Your task to perform on an android device: Search for "logitech g933" on bestbuy.com, select the first entry, add it to the cart, then select checkout. Image 0: 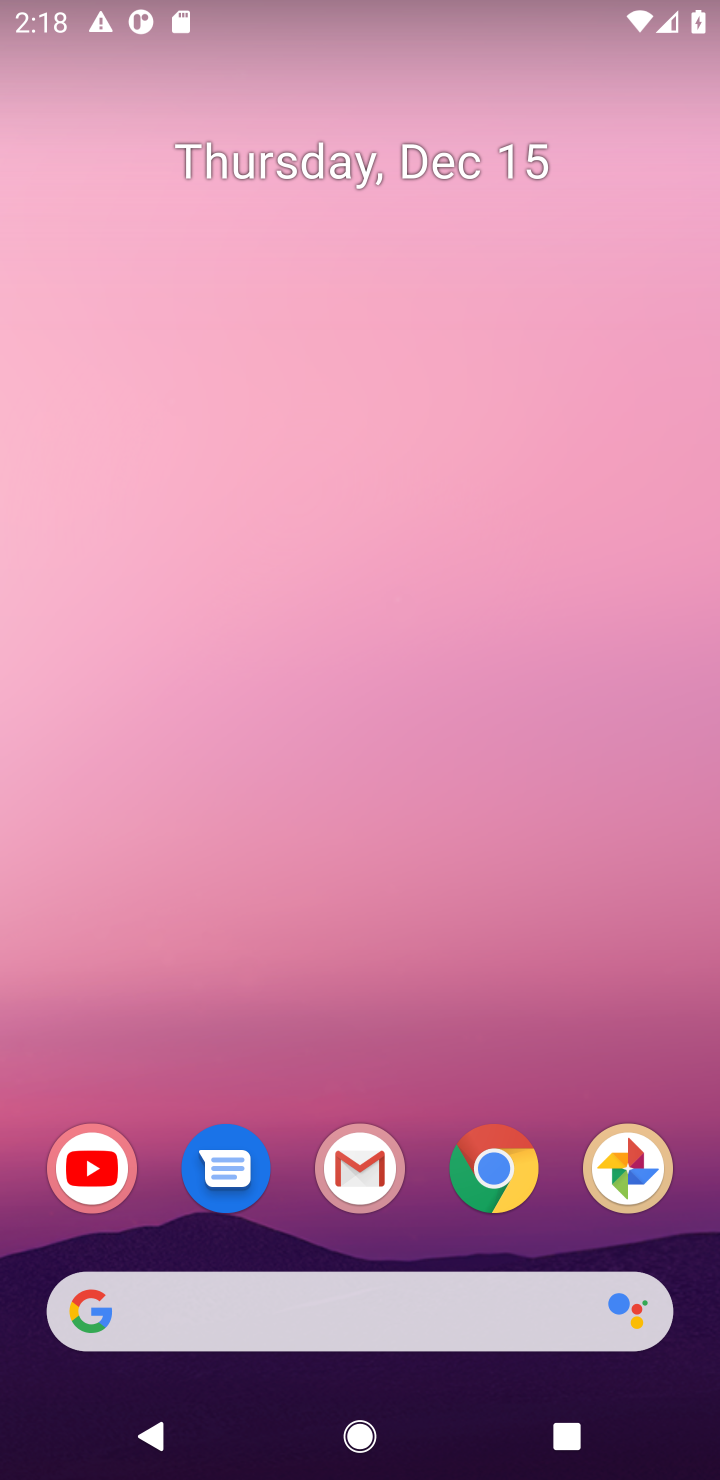
Step 0: click (491, 1153)
Your task to perform on an android device: Search for "logitech g933" on bestbuy.com, select the first entry, add it to the cart, then select checkout. Image 1: 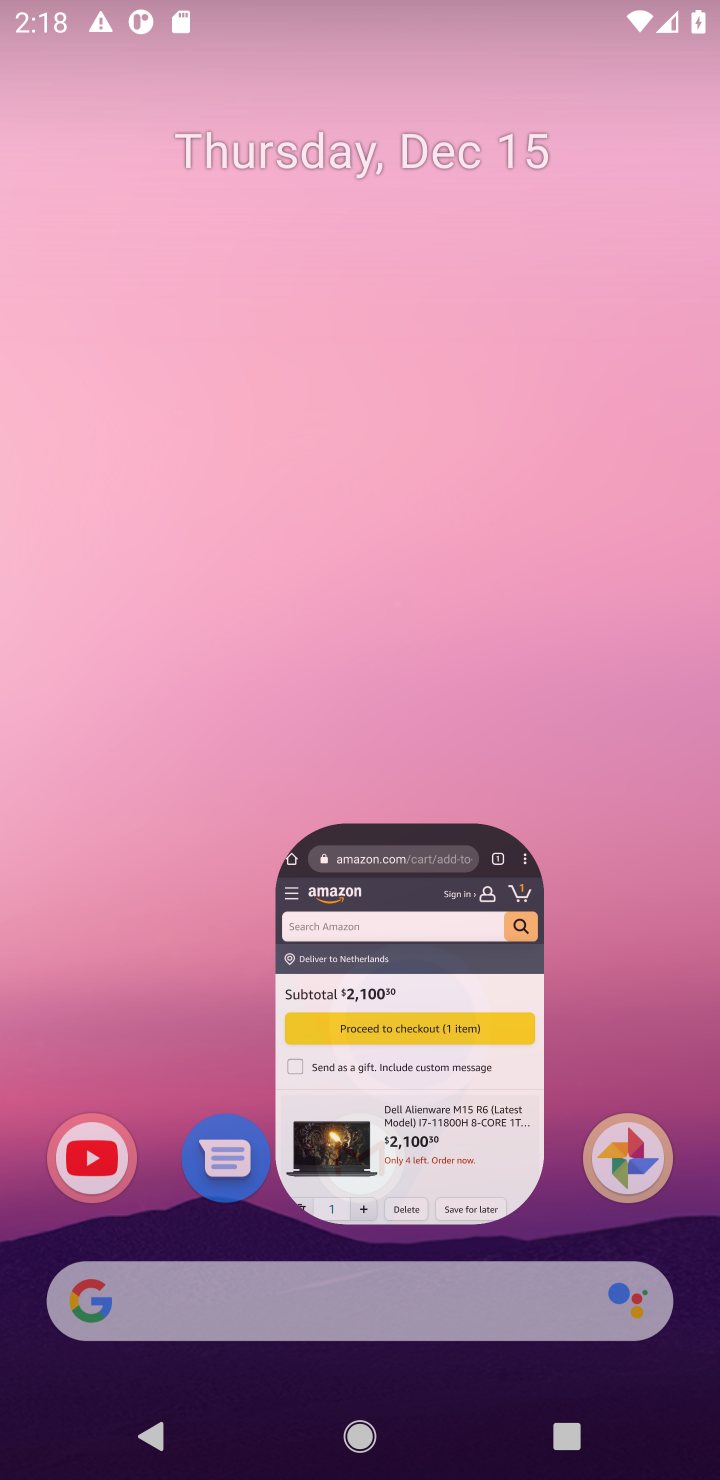
Step 1: click (491, 1153)
Your task to perform on an android device: Search for "logitech g933" on bestbuy.com, select the first entry, add it to the cart, then select checkout. Image 2: 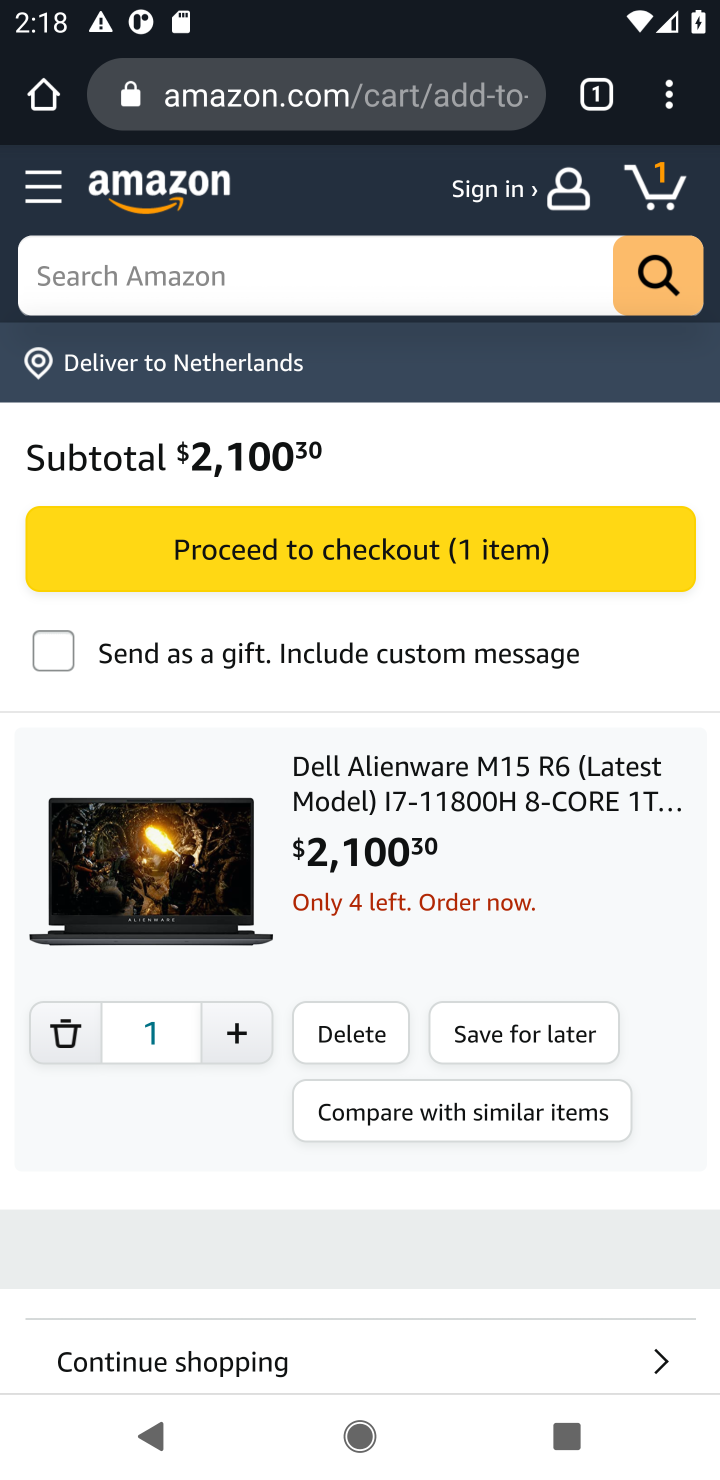
Step 2: drag from (646, 1469) to (53, 83)
Your task to perform on an android device: Search for "logitech g933" on bestbuy.com, select the first entry, add it to the cart, then select checkout. Image 3: 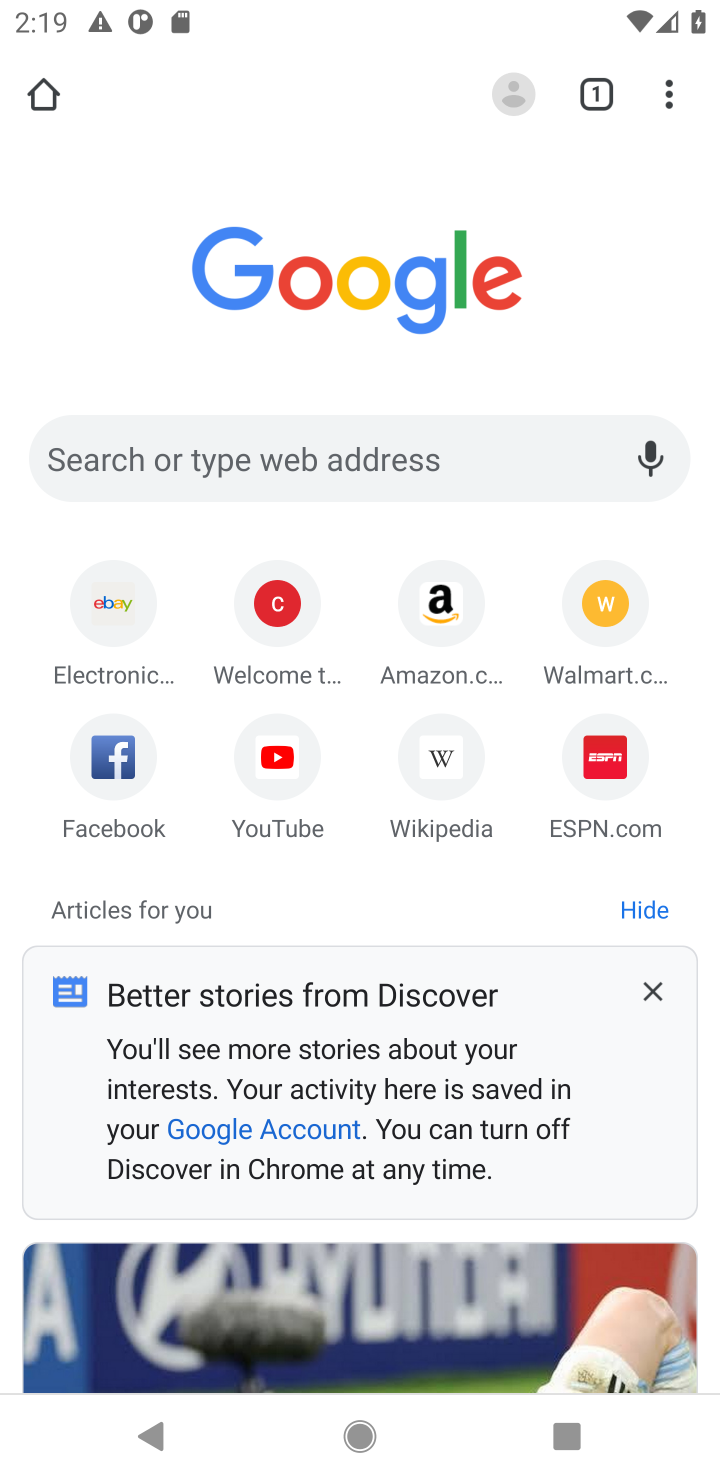
Step 3: click (547, 456)
Your task to perform on an android device: Search for "logitech g933" on bestbuy.com, select the first entry, add it to the cart, then select checkout. Image 4: 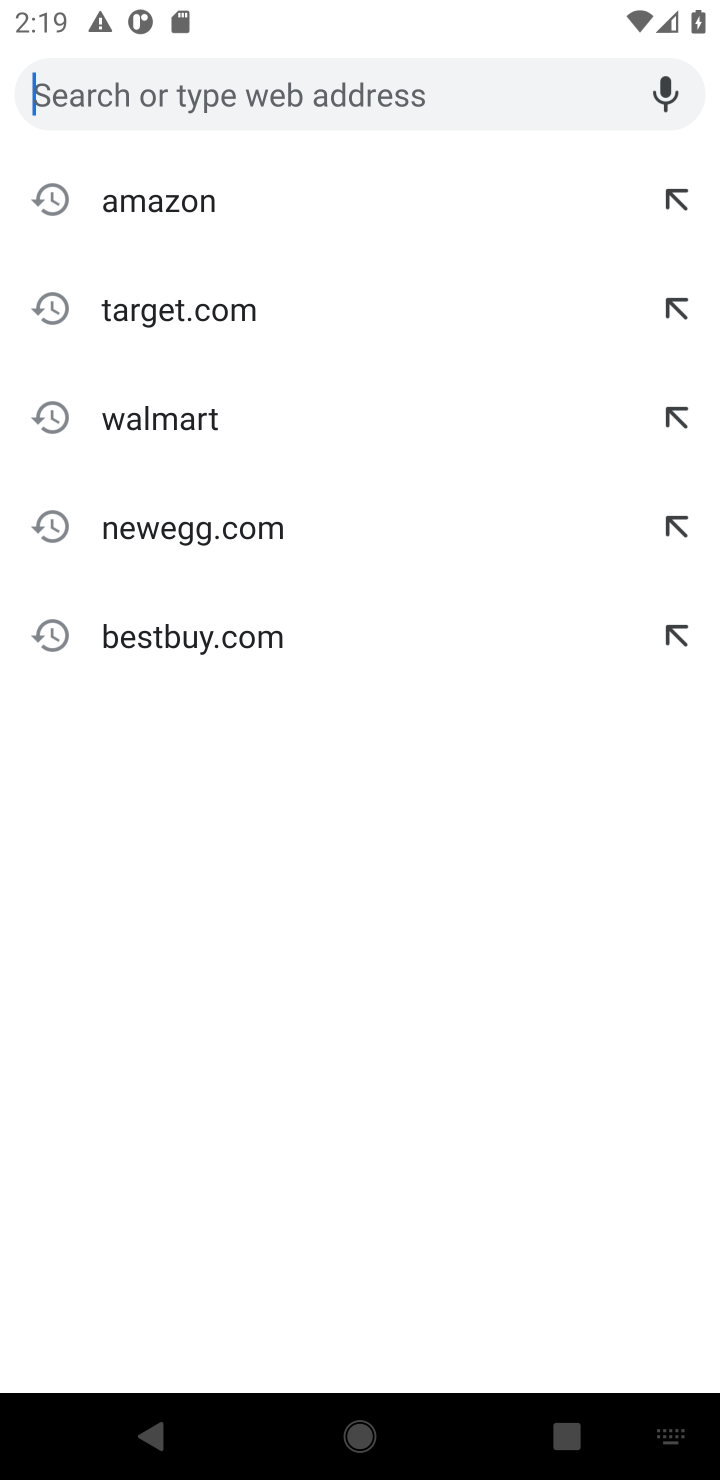
Step 4: click (245, 620)
Your task to perform on an android device: Search for "logitech g933" on bestbuy.com, select the first entry, add it to the cart, then select checkout. Image 5: 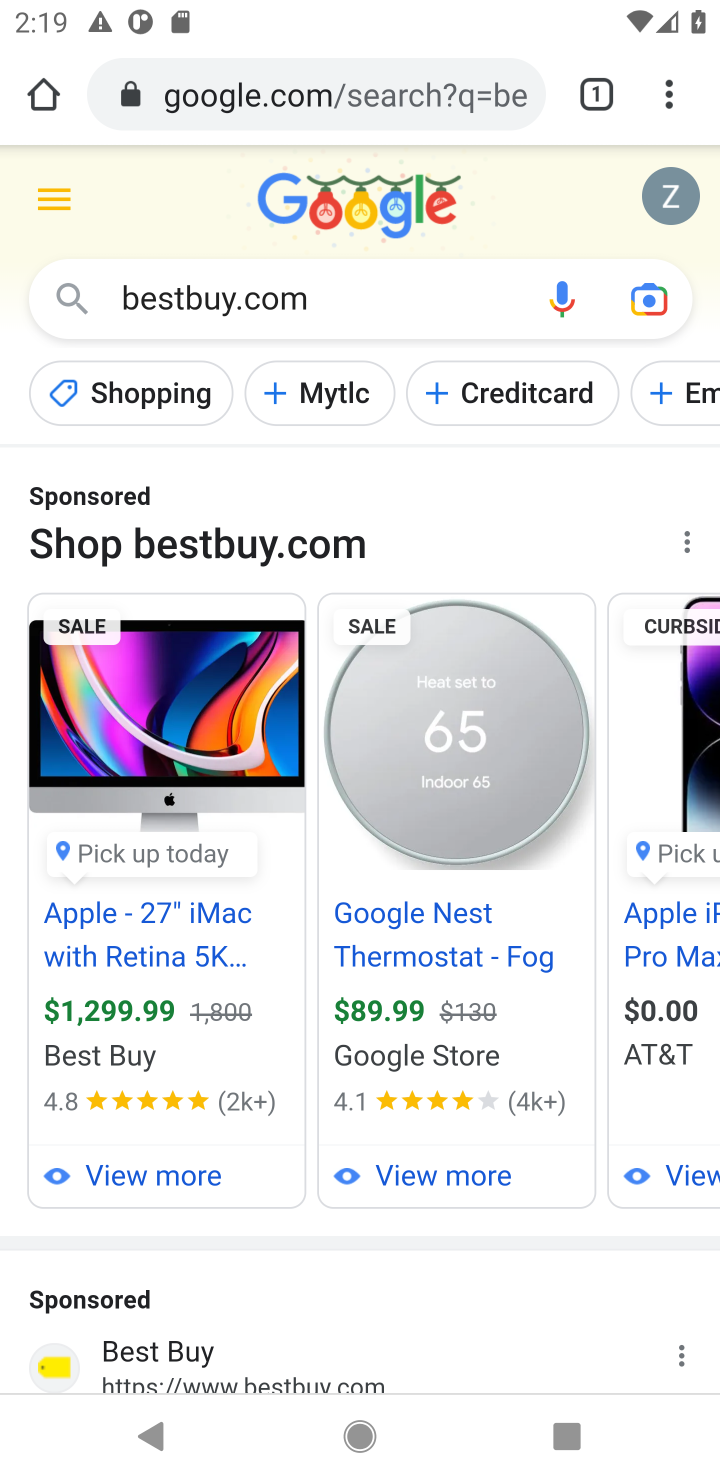
Step 5: click (184, 1335)
Your task to perform on an android device: Search for "logitech g933" on bestbuy.com, select the first entry, add it to the cart, then select checkout. Image 6: 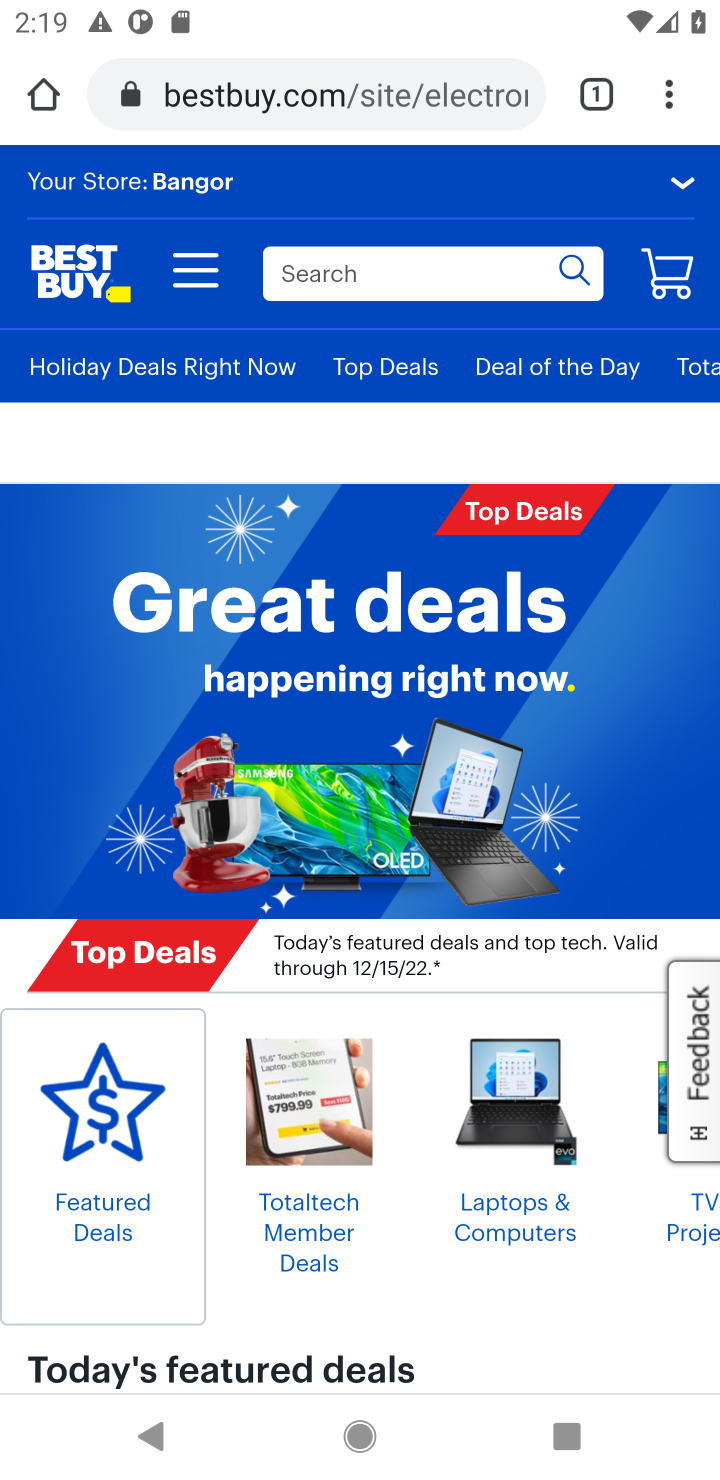
Step 6: click (471, 283)
Your task to perform on an android device: Search for "logitech g933" on bestbuy.com, select the first entry, add it to the cart, then select checkout. Image 7: 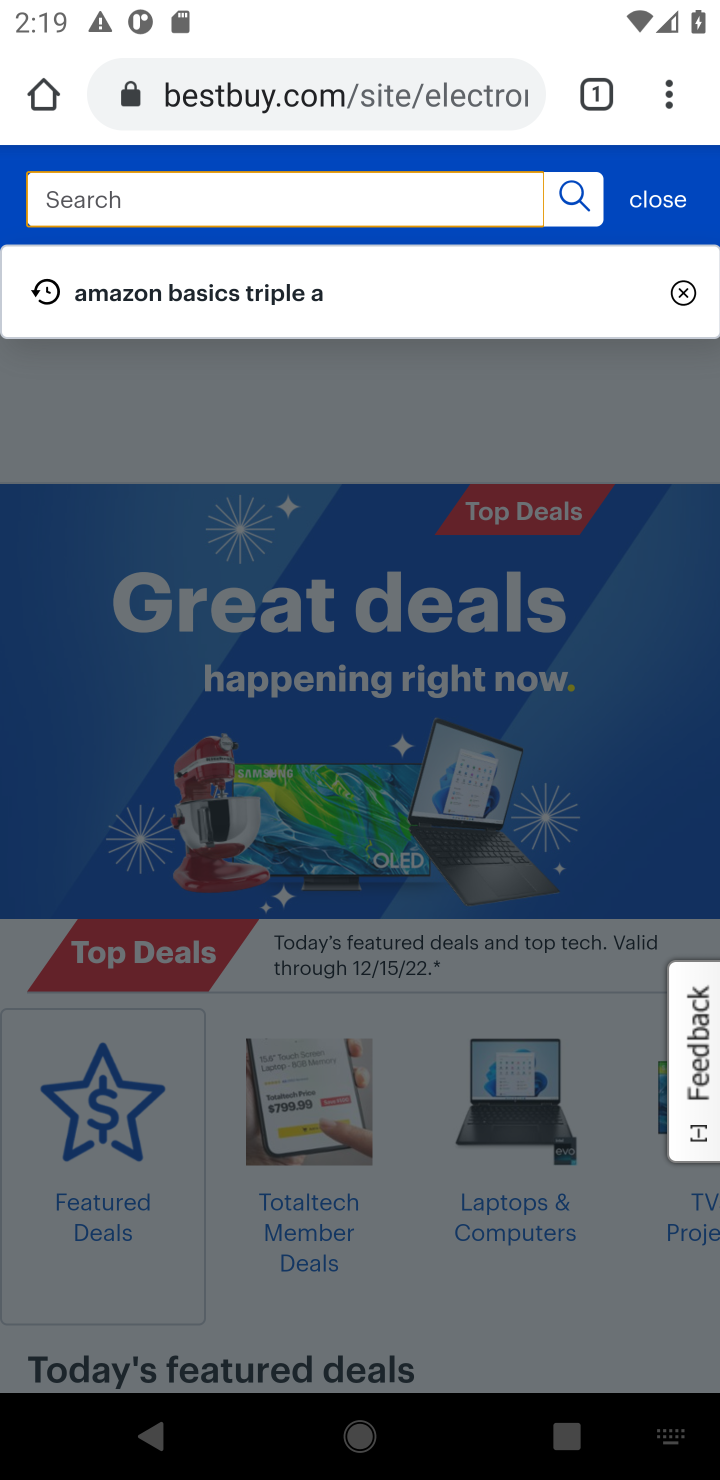
Step 7: press enter
Your task to perform on an android device: Search for "logitech g933" on bestbuy.com, select the first entry, add it to the cart, then select checkout. Image 8: 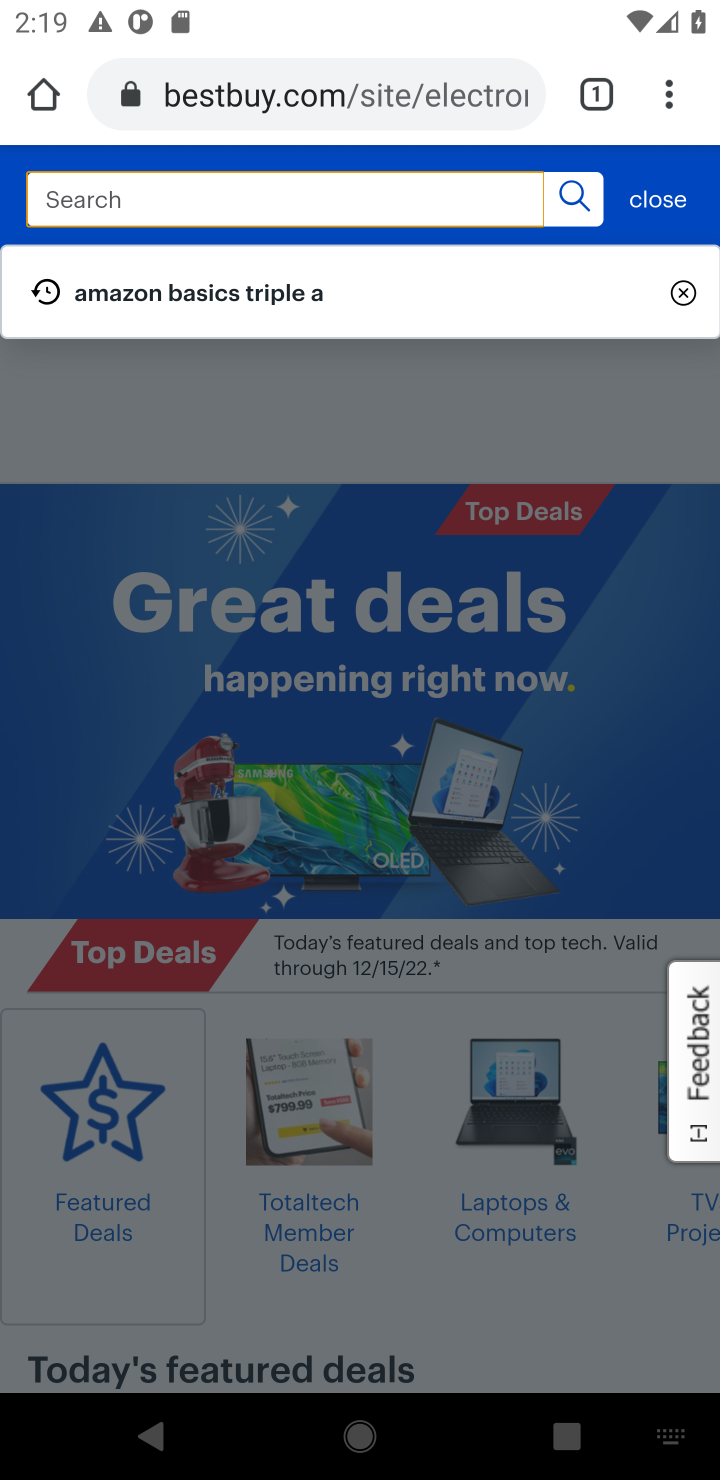
Step 8: type "logitech g933"
Your task to perform on an android device: Search for "logitech g933" on bestbuy.com, select the first entry, add it to the cart, then select checkout. Image 9: 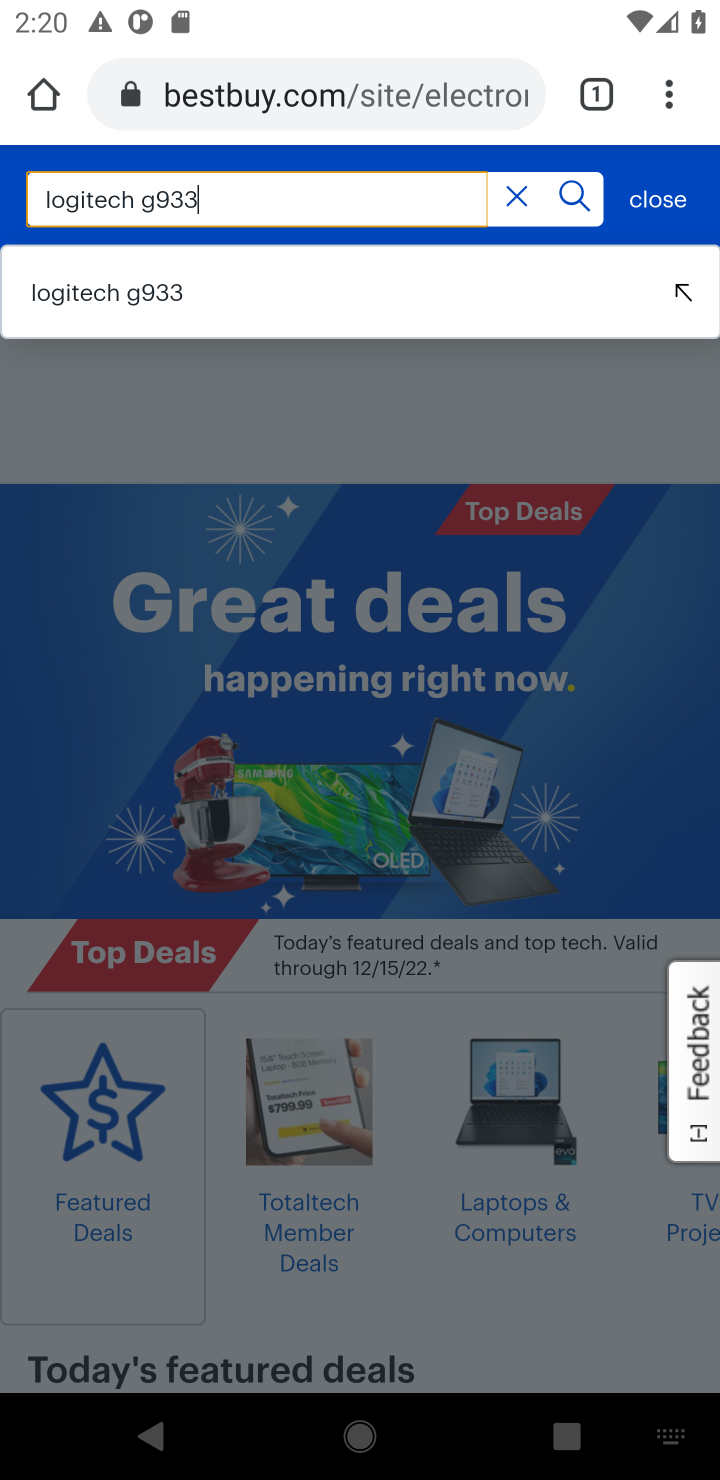
Step 9: click (110, 279)
Your task to perform on an android device: Search for "logitech g933" on bestbuy.com, select the first entry, add it to the cart, then select checkout. Image 10: 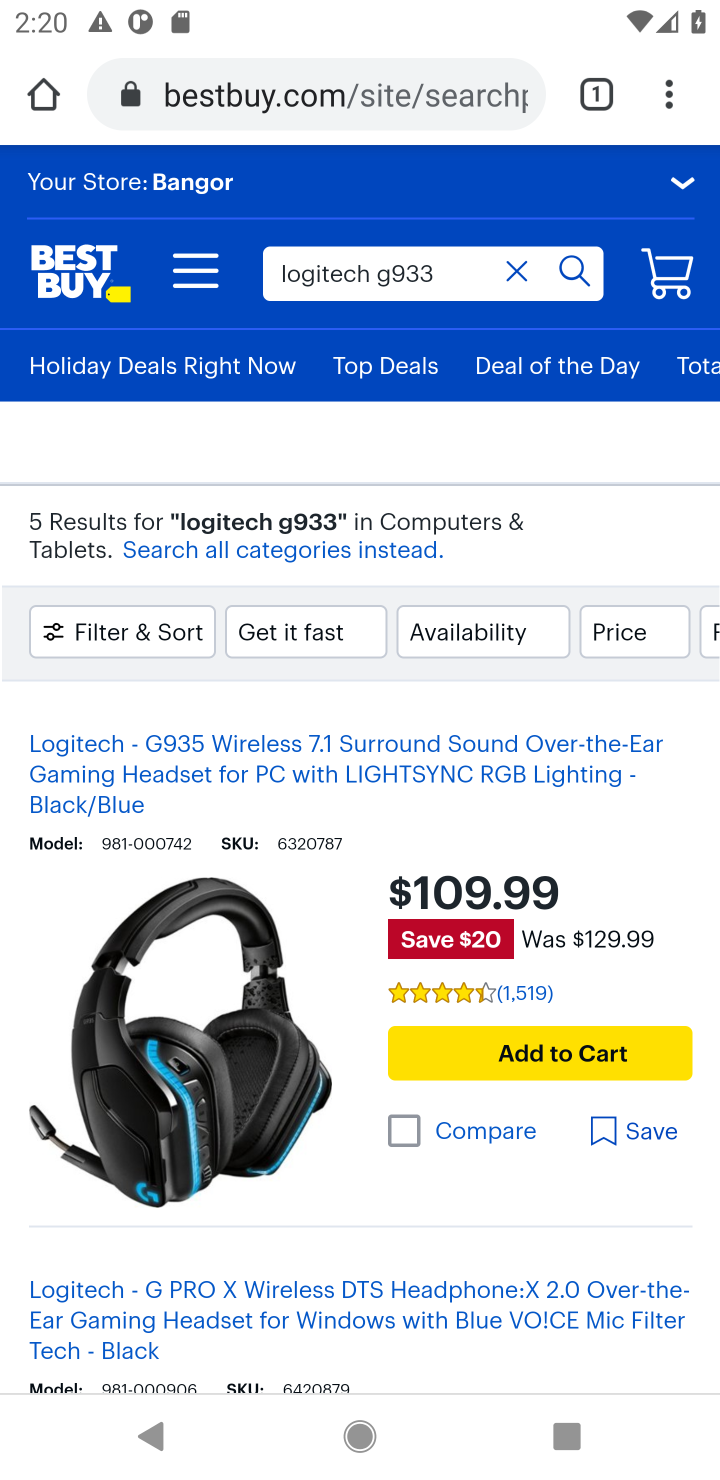
Step 10: click (147, 1061)
Your task to perform on an android device: Search for "logitech g933" on bestbuy.com, select the first entry, add it to the cart, then select checkout. Image 11: 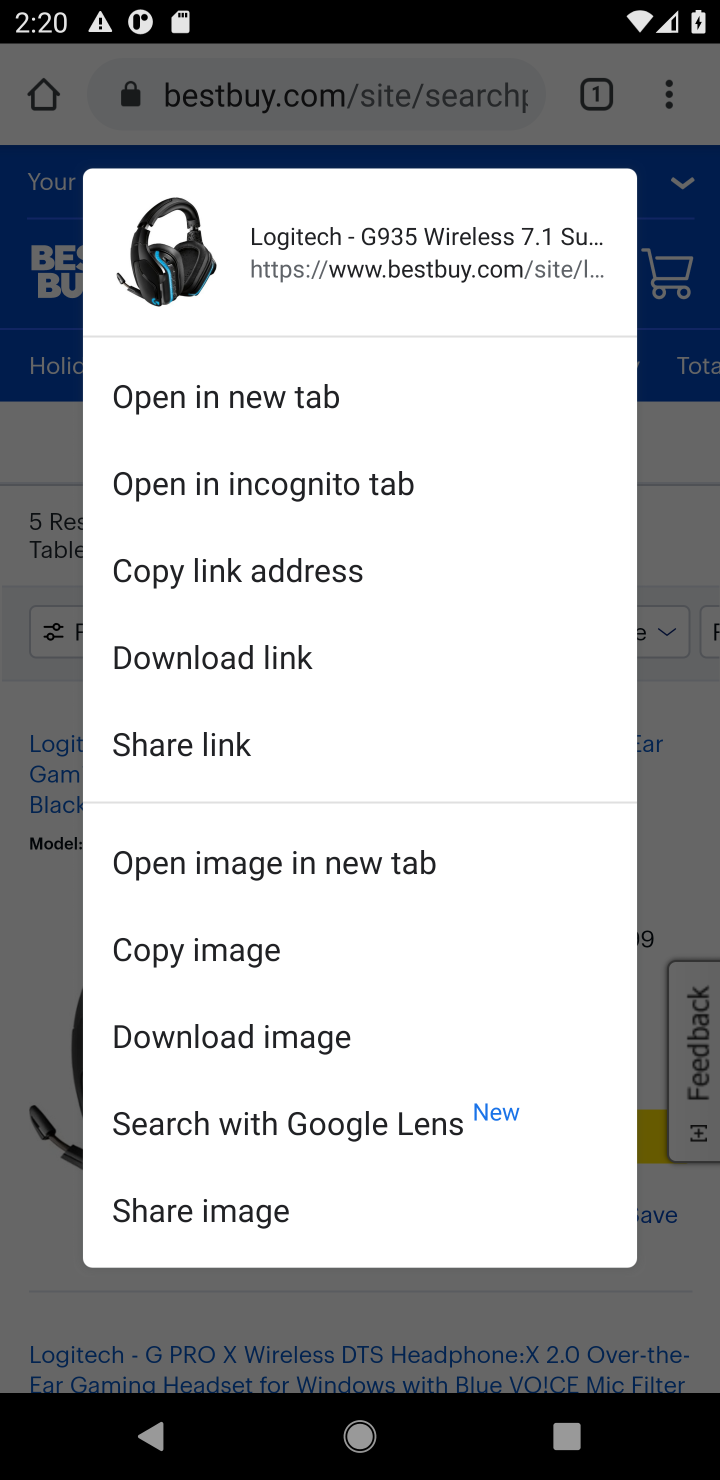
Step 11: click (709, 598)
Your task to perform on an android device: Search for "logitech g933" on bestbuy.com, select the first entry, add it to the cart, then select checkout. Image 12: 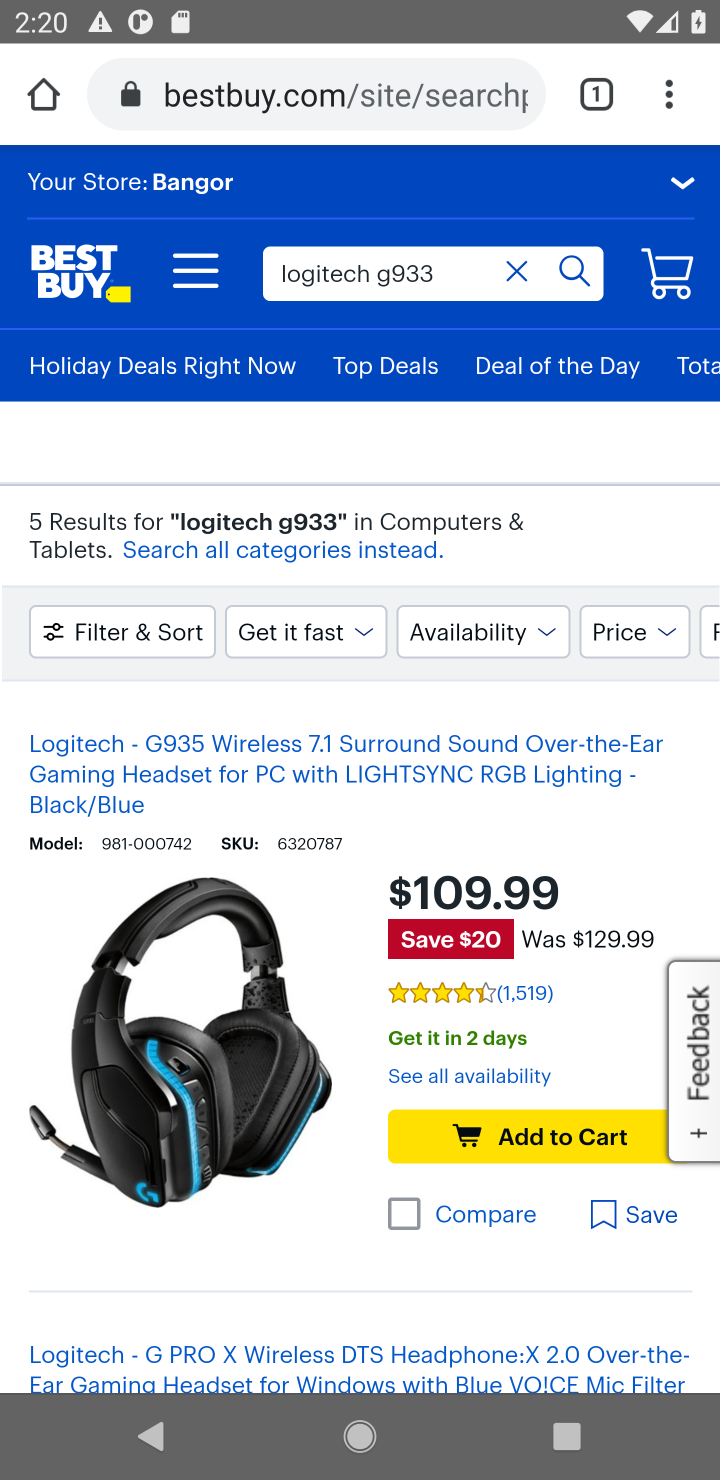
Step 12: task complete